Your task to perform on an android device: open app "Adobe Express: Graphic Design" Image 0: 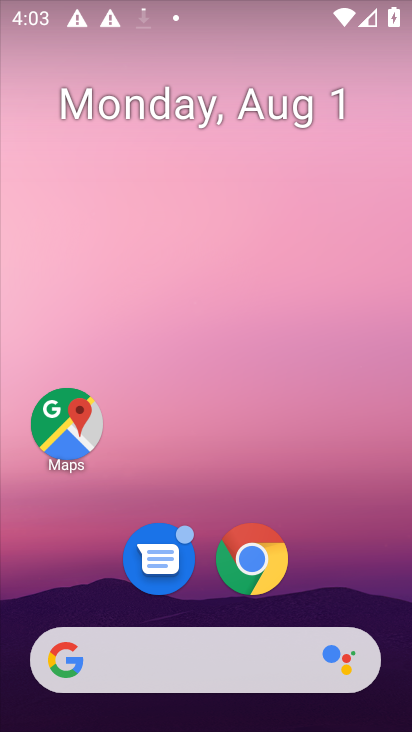
Step 0: drag from (188, 571) to (142, 4)
Your task to perform on an android device: open app "Adobe Express: Graphic Design" Image 1: 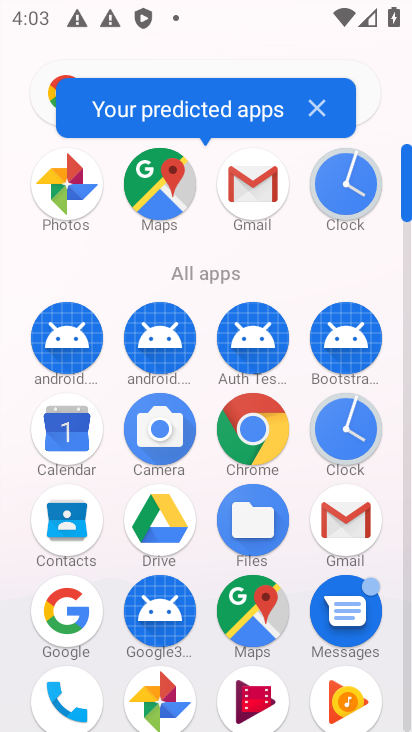
Step 1: drag from (203, 606) to (162, 231)
Your task to perform on an android device: open app "Adobe Express: Graphic Design" Image 2: 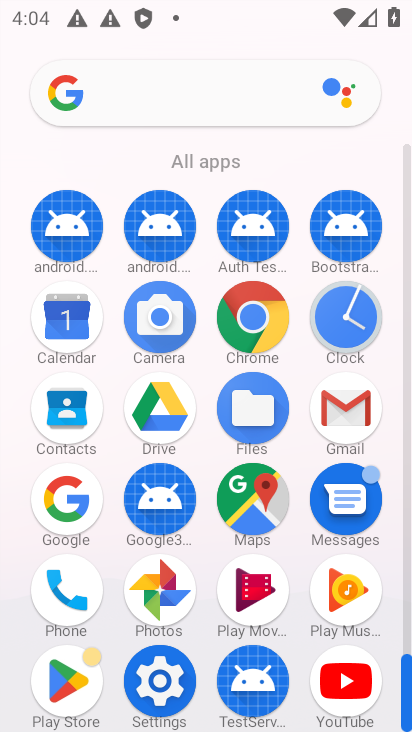
Step 2: click (55, 688)
Your task to perform on an android device: open app "Adobe Express: Graphic Design" Image 3: 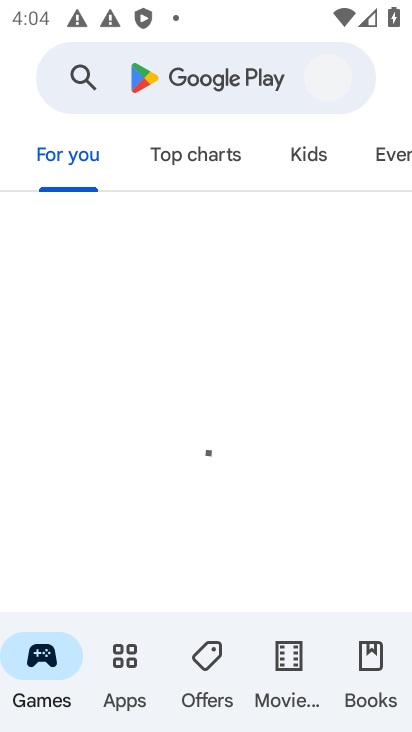
Step 3: click (181, 88)
Your task to perform on an android device: open app "Adobe Express: Graphic Design" Image 4: 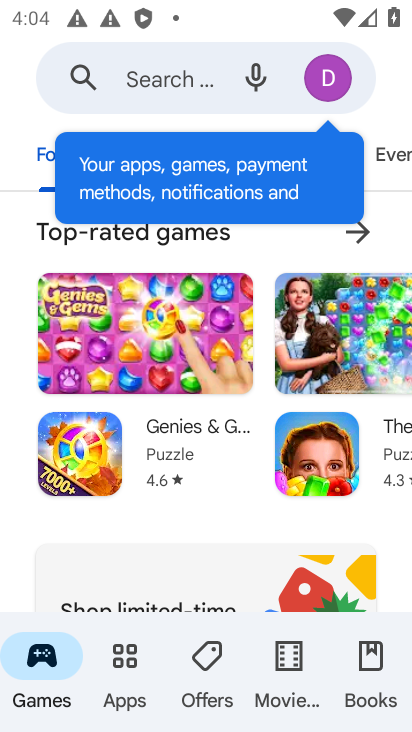
Step 4: type "Adobe Express"
Your task to perform on an android device: open app "Adobe Express: Graphic Design" Image 5: 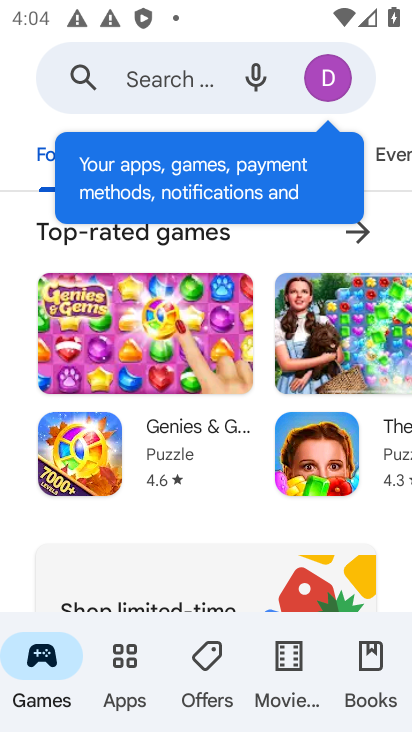
Step 5: click (152, 76)
Your task to perform on an android device: open app "Adobe Express: Graphic Design" Image 6: 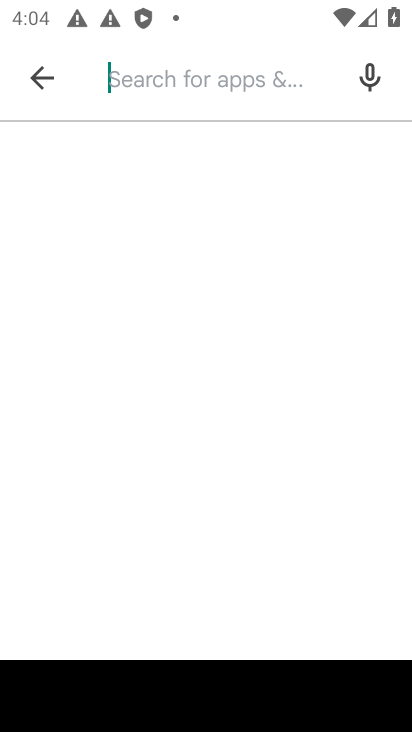
Step 6: type "Adobe Express"
Your task to perform on an android device: open app "Adobe Express: Graphic Design" Image 7: 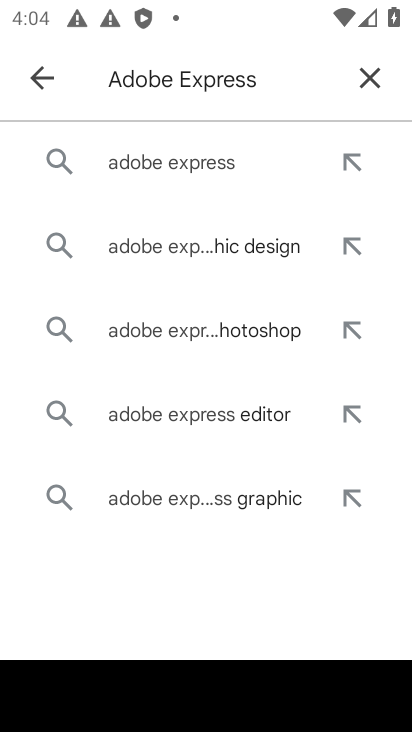
Step 7: click (232, 175)
Your task to perform on an android device: open app "Adobe Express: Graphic Design" Image 8: 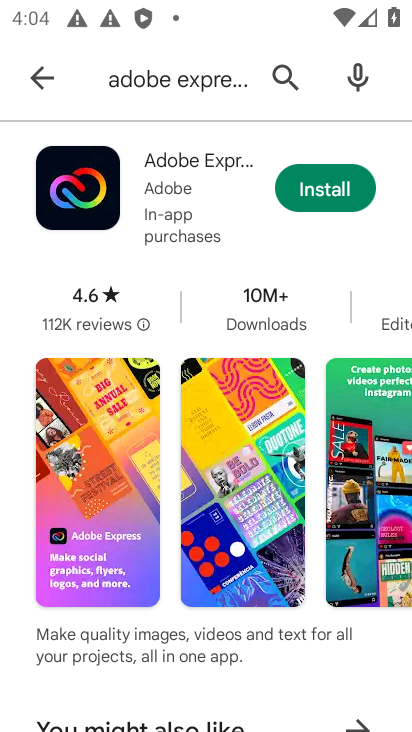
Step 8: task complete